Your task to perform on an android device: What is the recent news? Image 0: 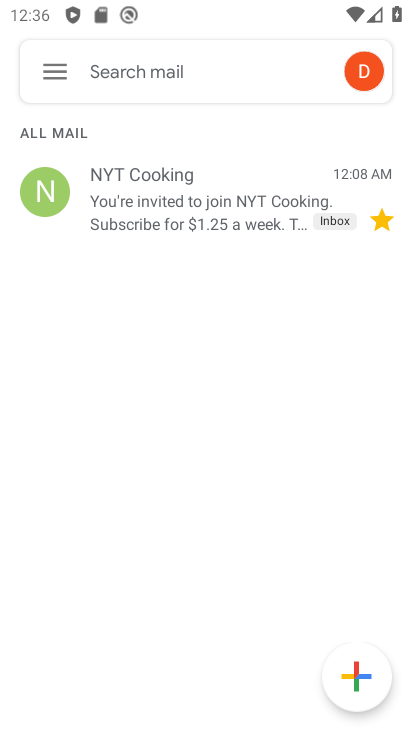
Step 0: press home button
Your task to perform on an android device: What is the recent news? Image 1: 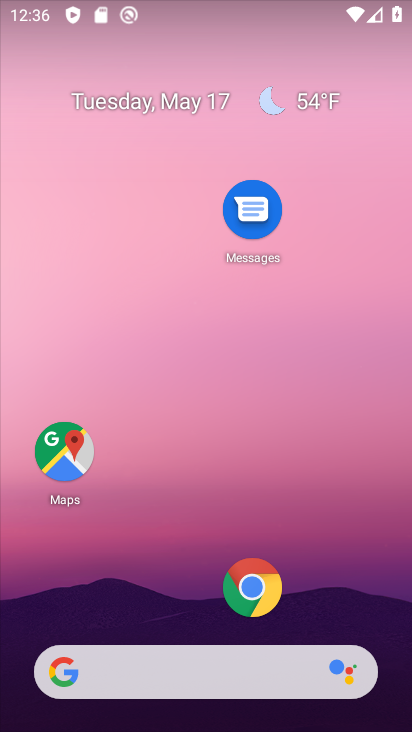
Step 1: drag from (168, 595) to (305, 48)
Your task to perform on an android device: What is the recent news? Image 2: 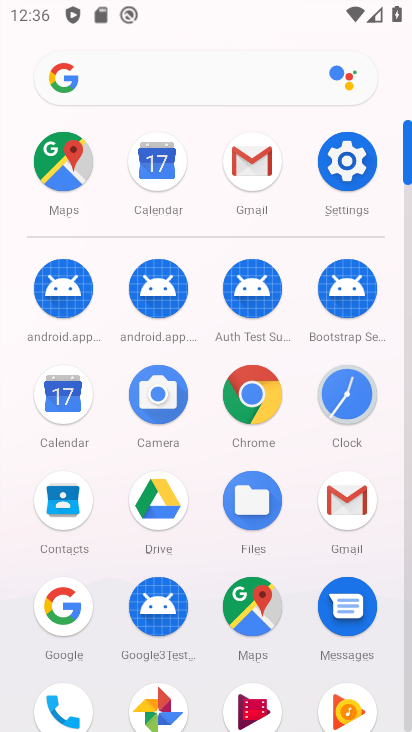
Step 2: click (228, 77)
Your task to perform on an android device: What is the recent news? Image 3: 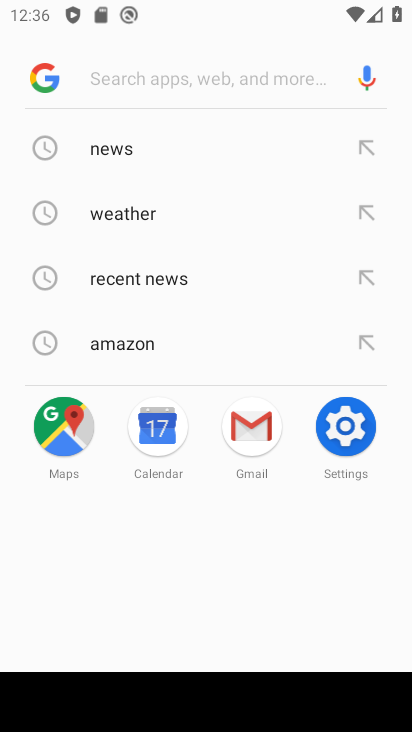
Step 3: click (188, 273)
Your task to perform on an android device: What is the recent news? Image 4: 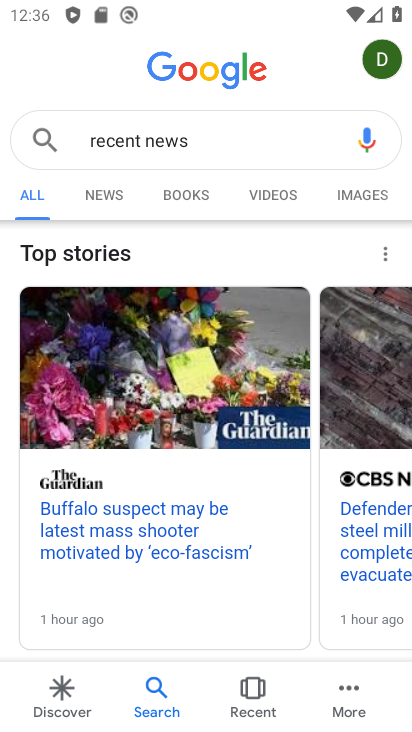
Step 4: task complete